Your task to perform on an android device: set the stopwatch Image 0: 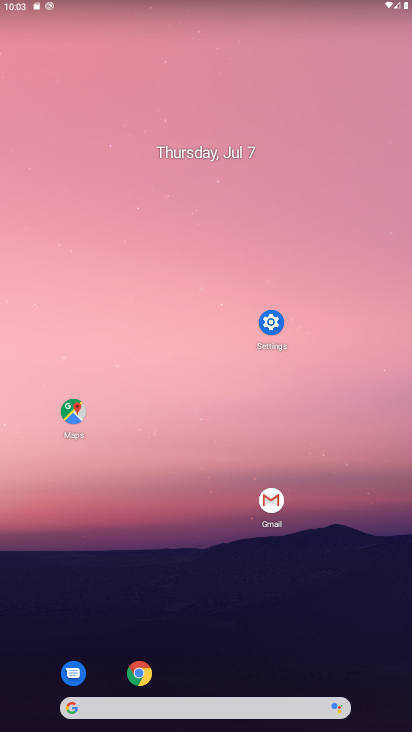
Step 0: drag from (377, 659) to (370, 100)
Your task to perform on an android device: set the stopwatch Image 1: 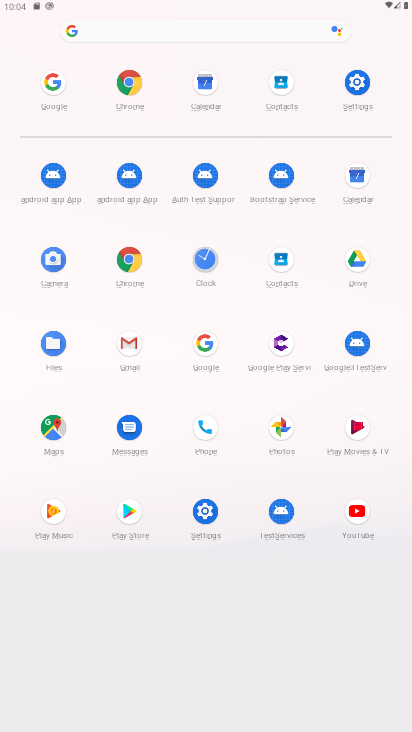
Step 1: click (209, 257)
Your task to perform on an android device: set the stopwatch Image 2: 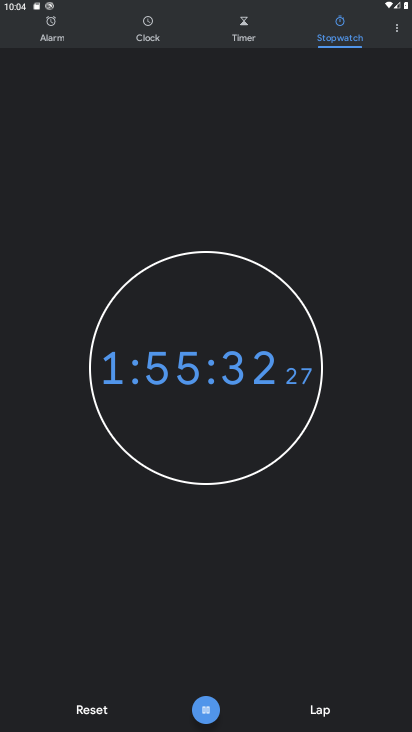
Step 2: click (93, 684)
Your task to perform on an android device: set the stopwatch Image 3: 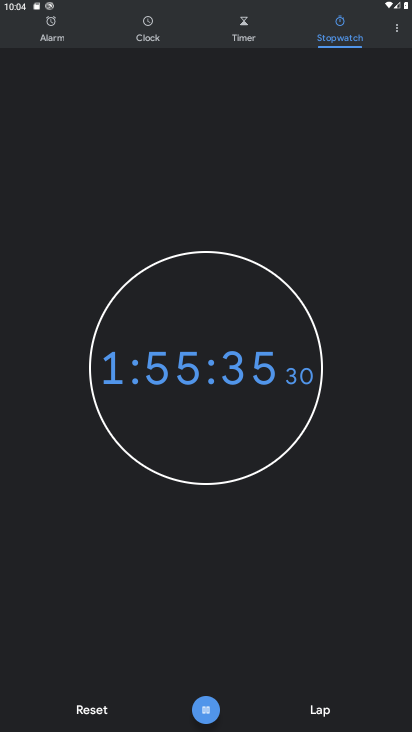
Step 3: click (90, 715)
Your task to perform on an android device: set the stopwatch Image 4: 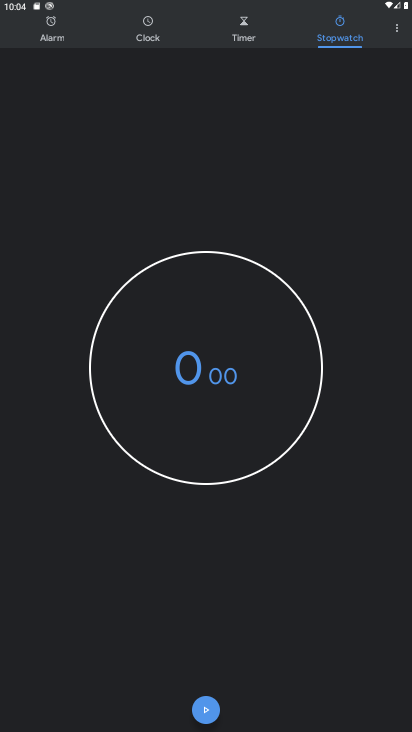
Step 4: click (213, 710)
Your task to perform on an android device: set the stopwatch Image 5: 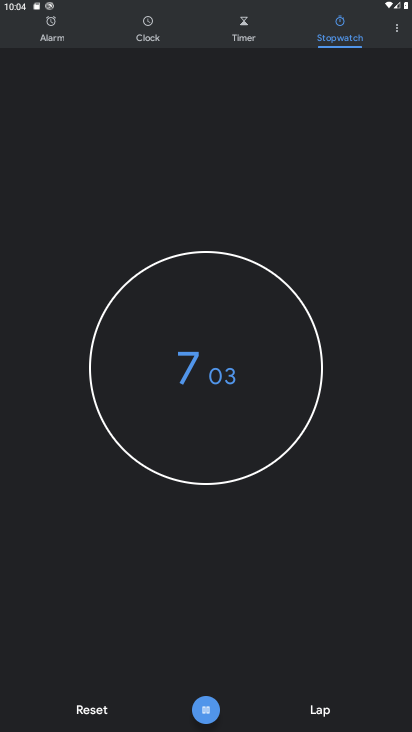
Step 5: task complete